Your task to perform on an android device: Open calendar and show me the fourth week of next month Image 0: 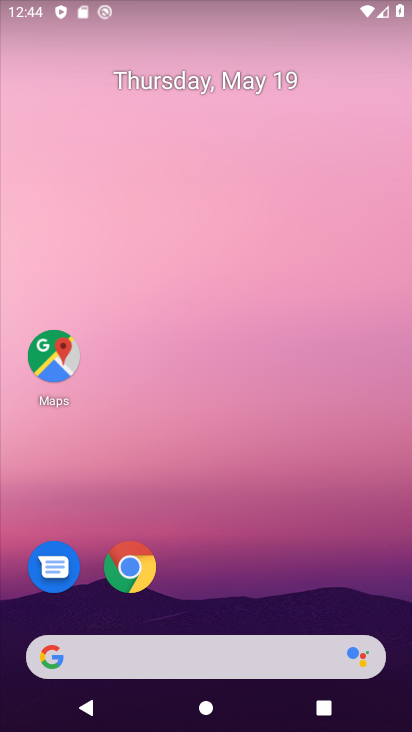
Step 0: drag from (43, 554) to (183, 180)
Your task to perform on an android device: Open calendar and show me the fourth week of next month Image 1: 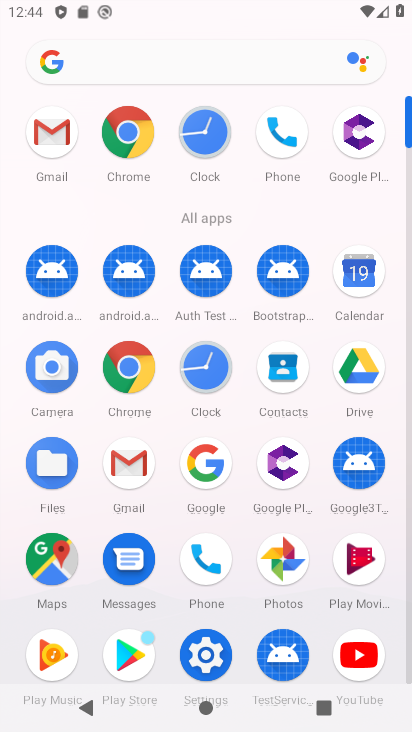
Step 1: click (369, 269)
Your task to perform on an android device: Open calendar and show me the fourth week of next month Image 2: 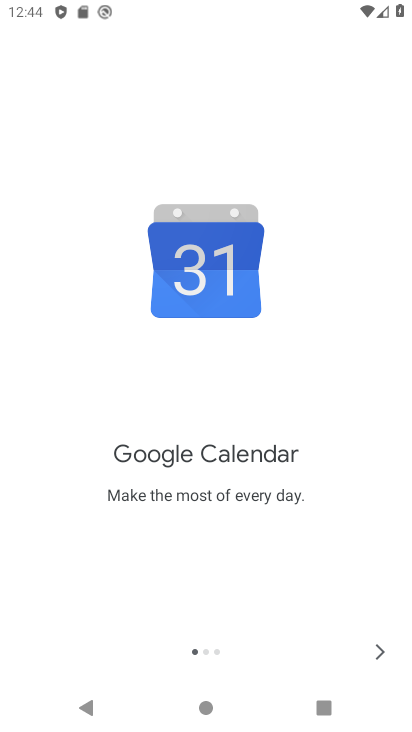
Step 2: click (376, 654)
Your task to perform on an android device: Open calendar and show me the fourth week of next month Image 3: 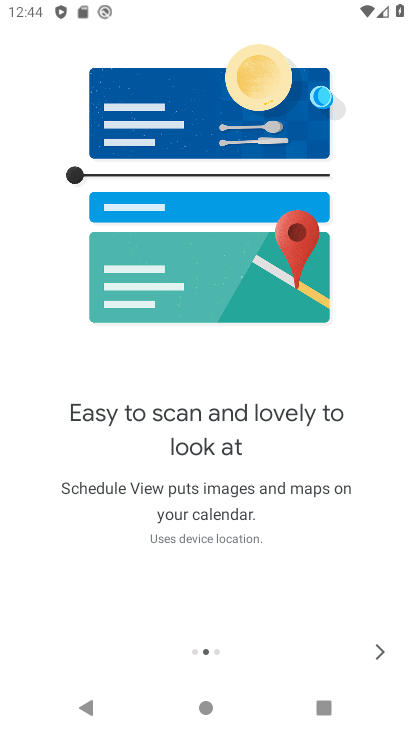
Step 3: click (376, 654)
Your task to perform on an android device: Open calendar and show me the fourth week of next month Image 4: 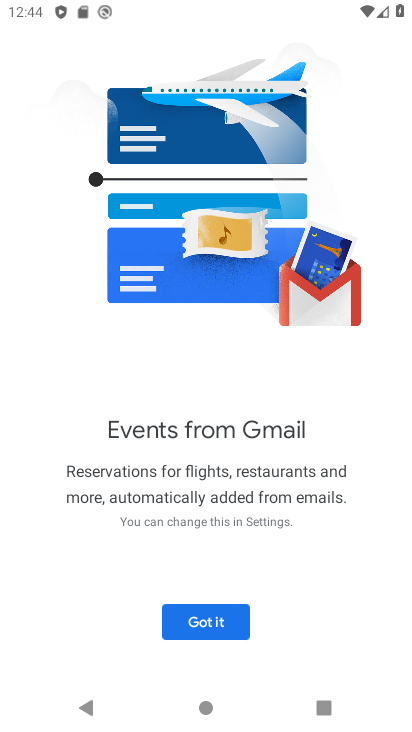
Step 4: click (237, 620)
Your task to perform on an android device: Open calendar and show me the fourth week of next month Image 5: 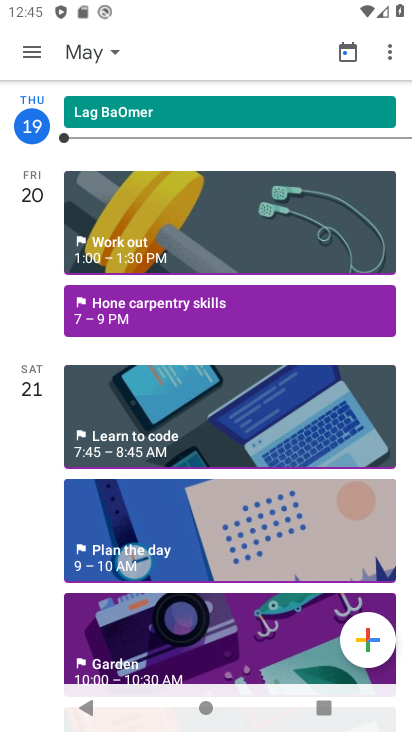
Step 5: click (105, 58)
Your task to perform on an android device: Open calendar and show me the fourth week of next month Image 6: 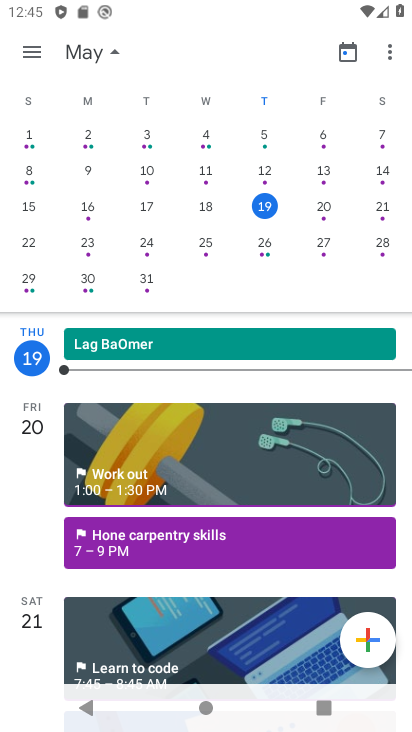
Step 6: task complete